Your task to perform on an android device: Go to settings Image 0: 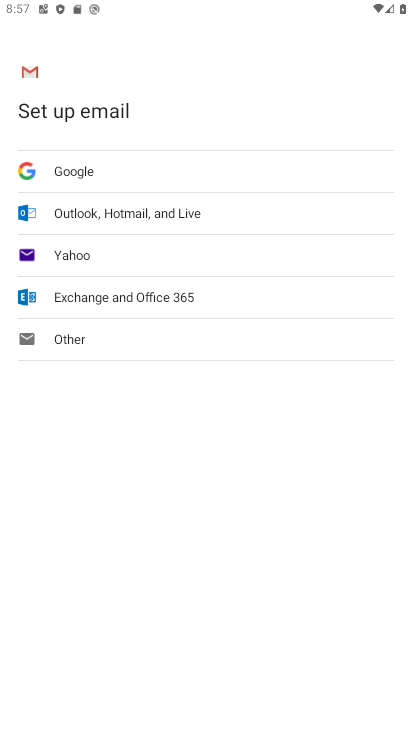
Step 0: press home button
Your task to perform on an android device: Go to settings Image 1: 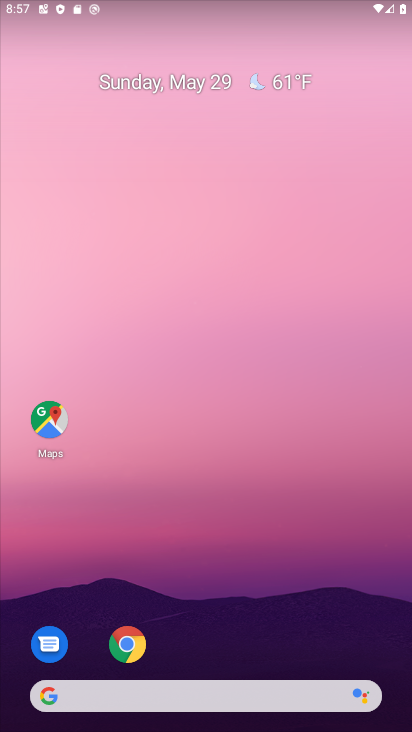
Step 1: drag from (241, 687) to (295, 29)
Your task to perform on an android device: Go to settings Image 2: 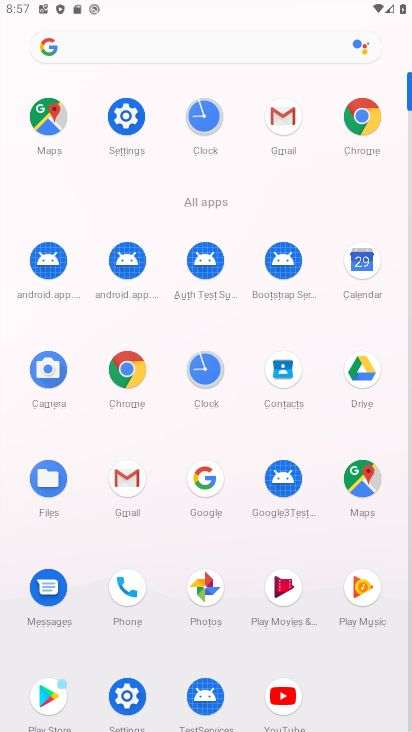
Step 2: click (115, 121)
Your task to perform on an android device: Go to settings Image 3: 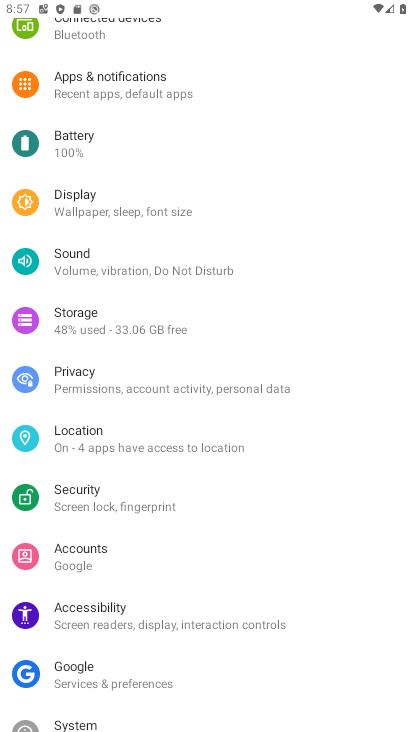
Step 3: task complete